Your task to perform on an android device: change your default location settings in chrome Image 0: 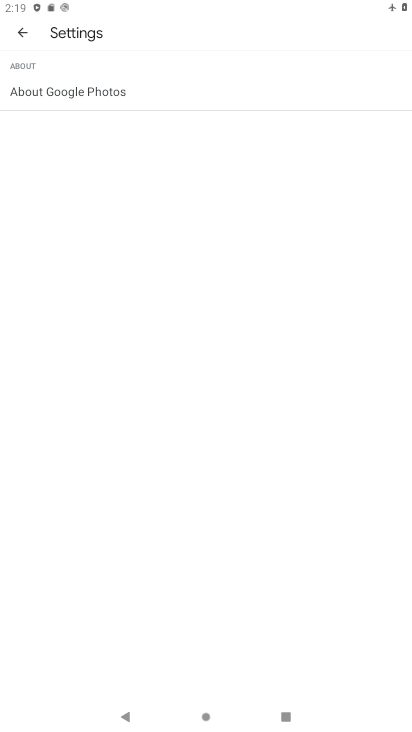
Step 0: press home button
Your task to perform on an android device: change your default location settings in chrome Image 1: 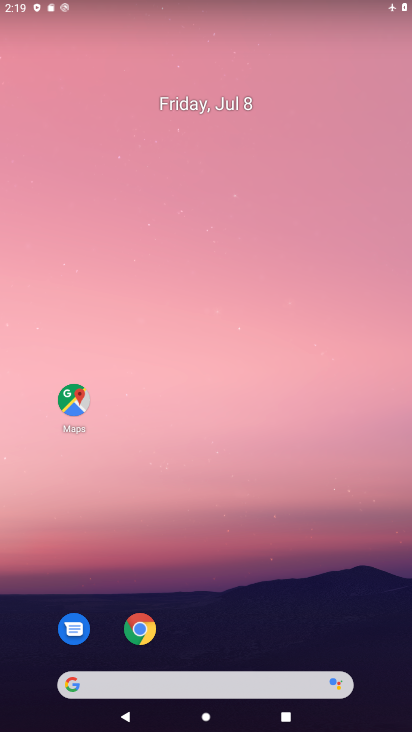
Step 1: drag from (7, 688) to (404, 424)
Your task to perform on an android device: change your default location settings in chrome Image 2: 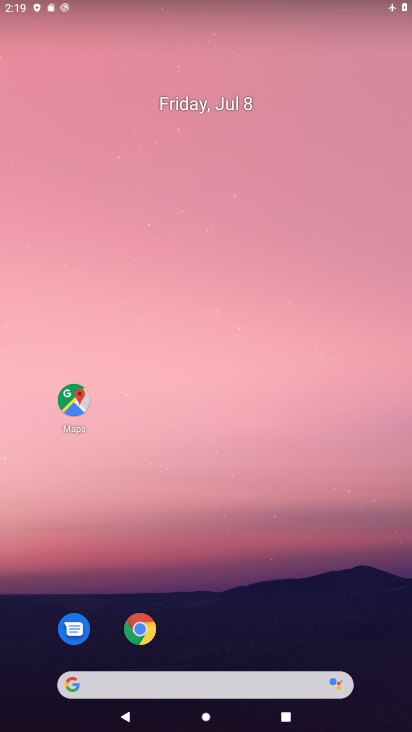
Step 2: click (25, 687)
Your task to perform on an android device: change your default location settings in chrome Image 3: 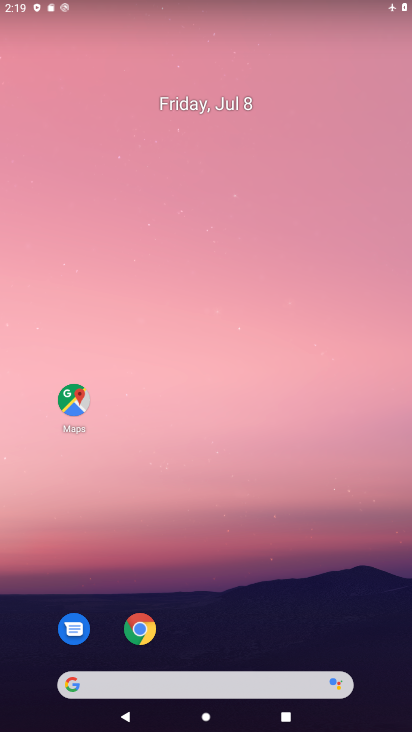
Step 3: click (207, 19)
Your task to perform on an android device: change your default location settings in chrome Image 4: 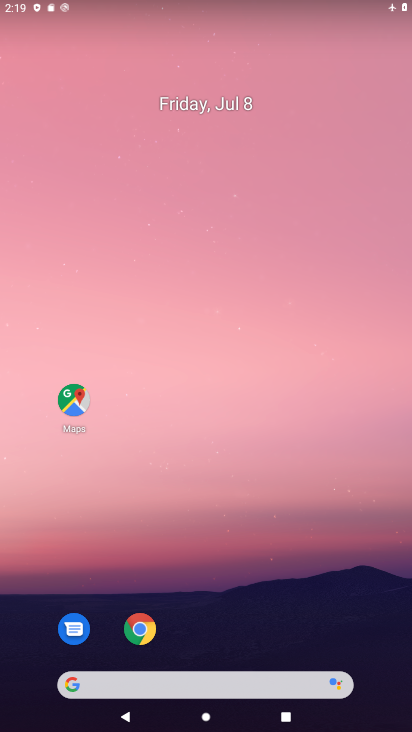
Step 4: task complete